Your task to perform on an android device: Open the map Image 0: 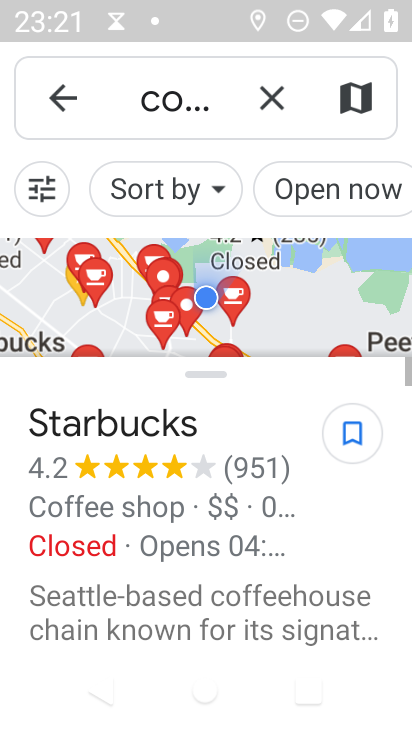
Step 0: press home button
Your task to perform on an android device: Open the map Image 1: 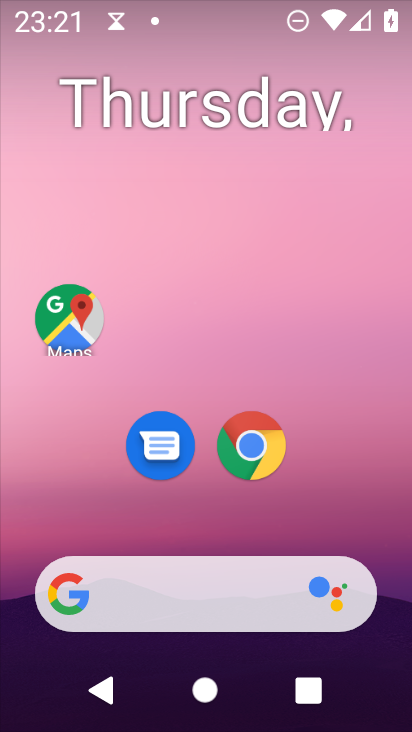
Step 1: drag from (230, 711) to (229, 134)
Your task to perform on an android device: Open the map Image 2: 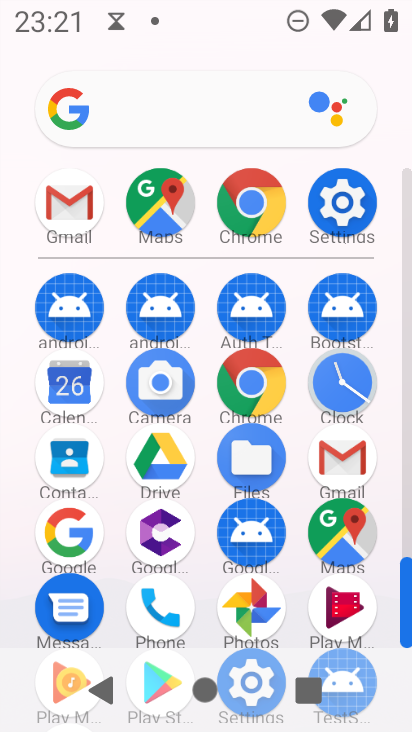
Step 2: click (346, 533)
Your task to perform on an android device: Open the map Image 3: 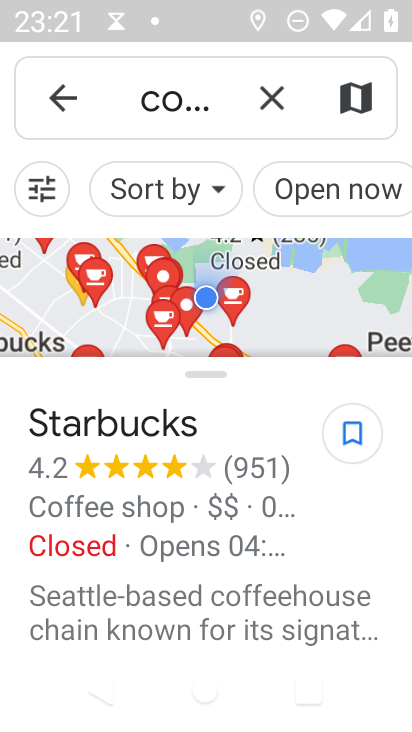
Step 3: task complete